Your task to perform on an android device: Open eBay Image 0: 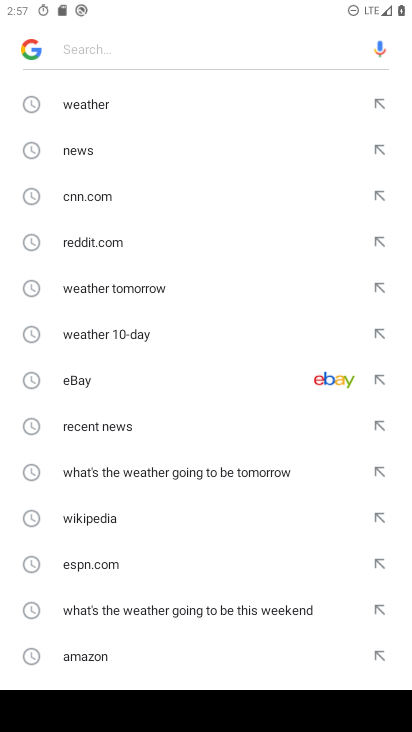
Step 0: click (122, 388)
Your task to perform on an android device: Open eBay Image 1: 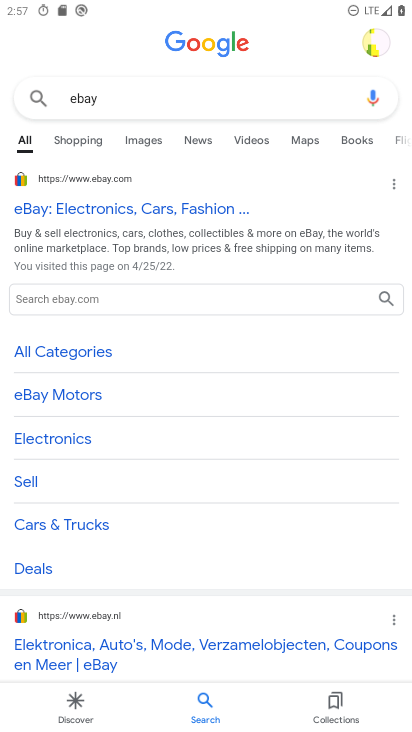
Step 1: drag from (304, 514) to (304, 118)
Your task to perform on an android device: Open eBay Image 2: 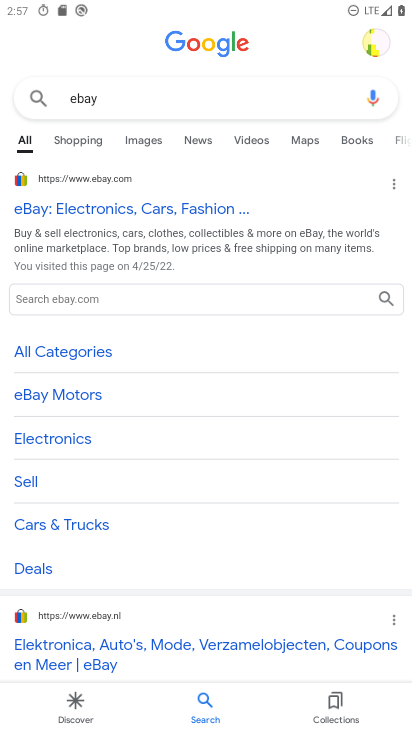
Step 2: drag from (271, 548) to (299, 619)
Your task to perform on an android device: Open eBay Image 3: 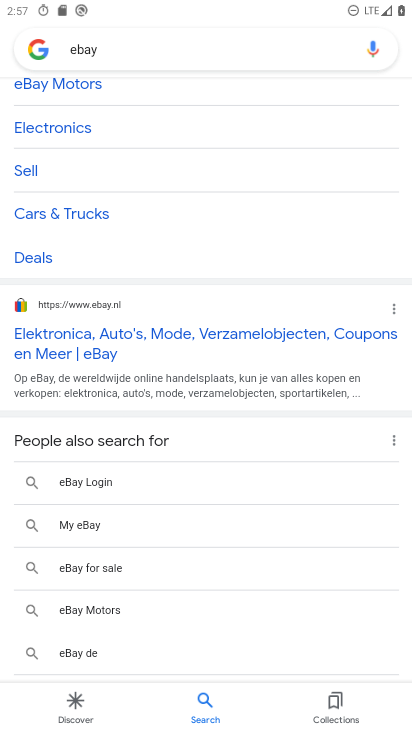
Step 3: click (66, 349)
Your task to perform on an android device: Open eBay Image 4: 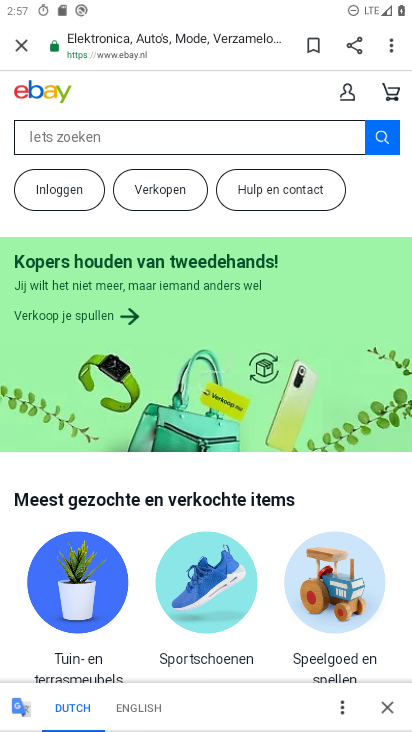
Step 4: task complete